Your task to perform on an android device: turn on translation in the chrome app Image 0: 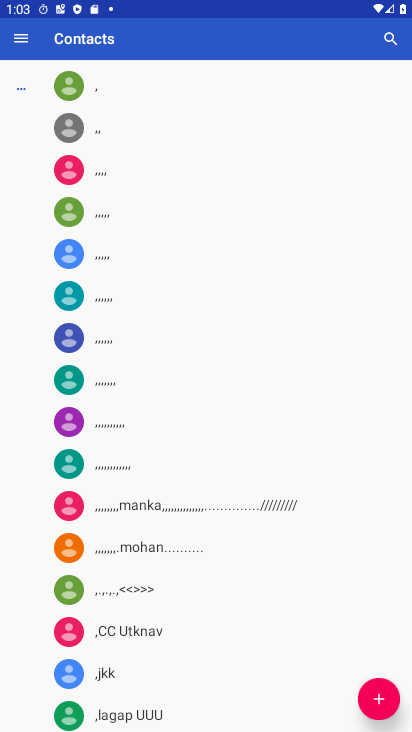
Step 0: press home button
Your task to perform on an android device: turn on translation in the chrome app Image 1: 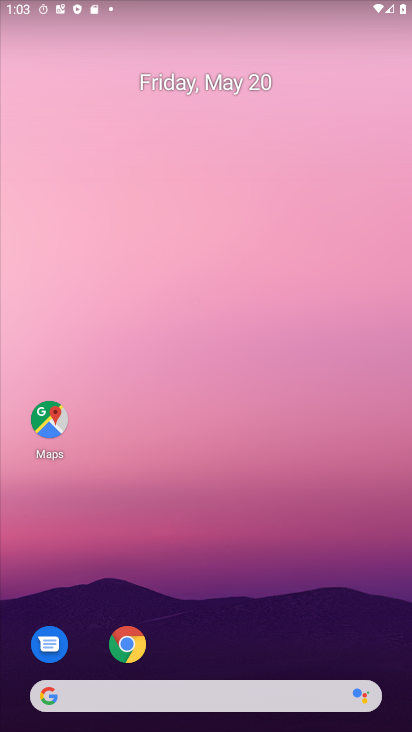
Step 1: click (127, 646)
Your task to perform on an android device: turn on translation in the chrome app Image 2: 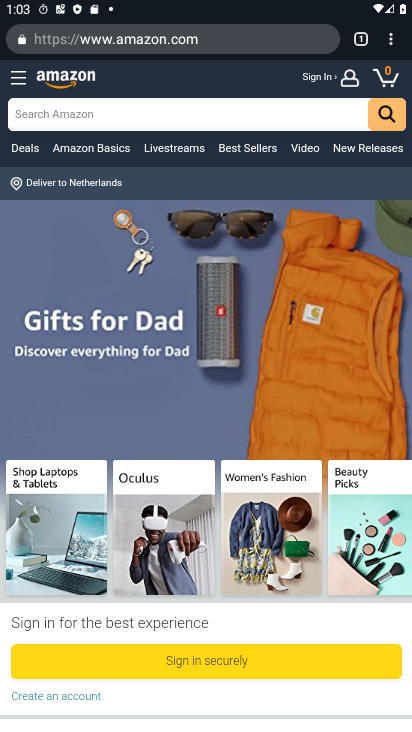
Step 2: drag from (390, 41) to (272, 440)
Your task to perform on an android device: turn on translation in the chrome app Image 3: 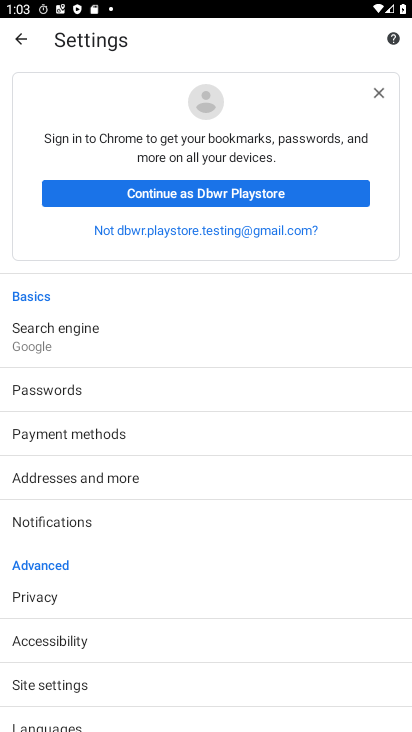
Step 3: drag from (145, 609) to (204, 332)
Your task to perform on an android device: turn on translation in the chrome app Image 4: 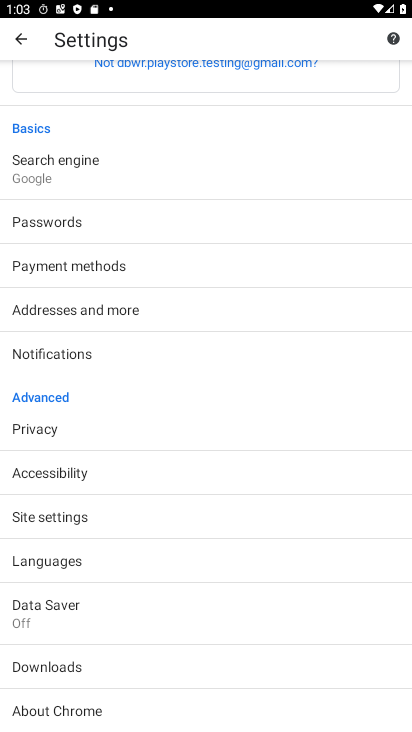
Step 4: click (43, 567)
Your task to perform on an android device: turn on translation in the chrome app Image 5: 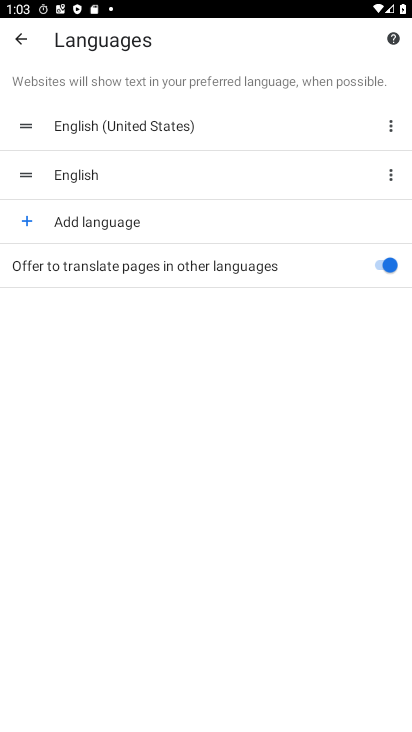
Step 5: task complete